Your task to perform on an android device: turn on location history Image 0: 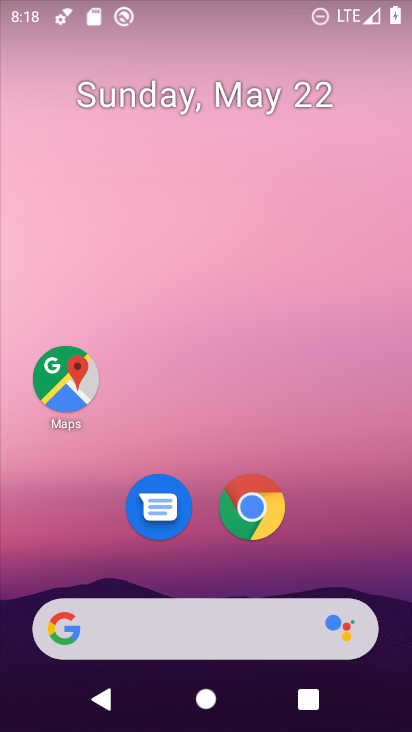
Step 0: click (70, 387)
Your task to perform on an android device: turn on location history Image 1: 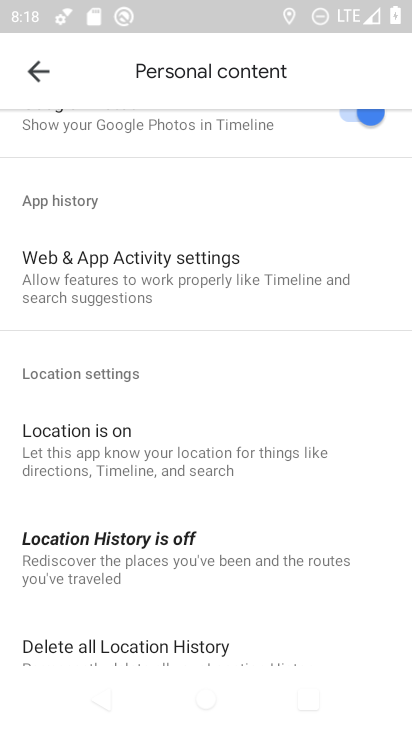
Step 1: click (160, 566)
Your task to perform on an android device: turn on location history Image 2: 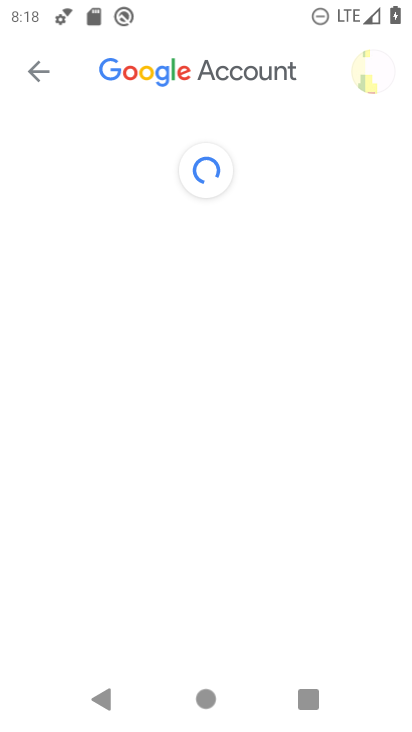
Step 2: task complete